Your task to perform on an android device: Open privacy settings Image 0: 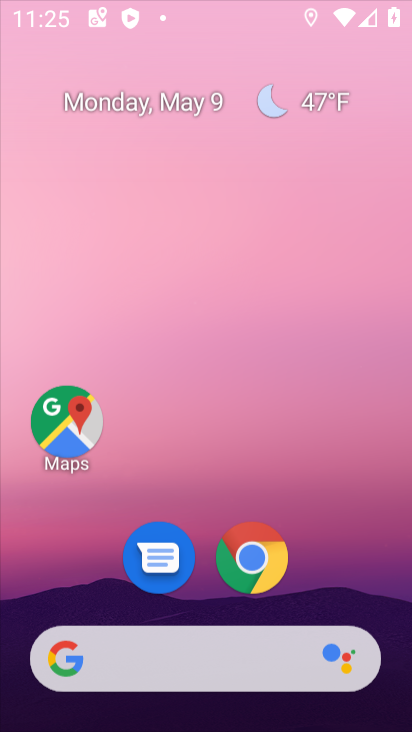
Step 0: click (342, 1)
Your task to perform on an android device: Open privacy settings Image 1: 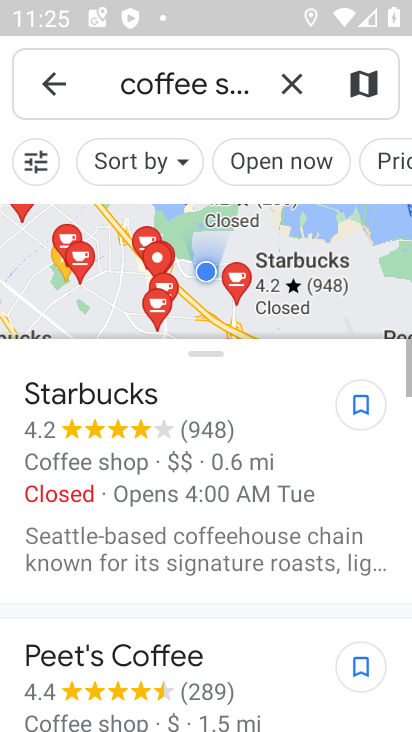
Step 1: press home button
Your task to perform on an android device: Open privacy settings Image 2: 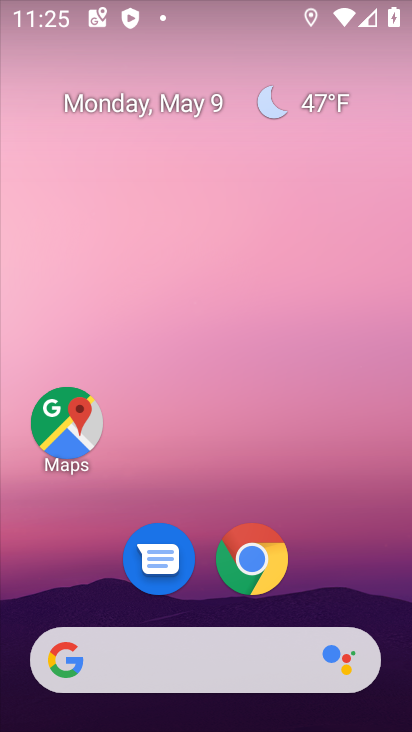
Step 2: drag from (349, 550) to (322, 71)
Your task to perform on an android device: Open privacy settings Image 3: 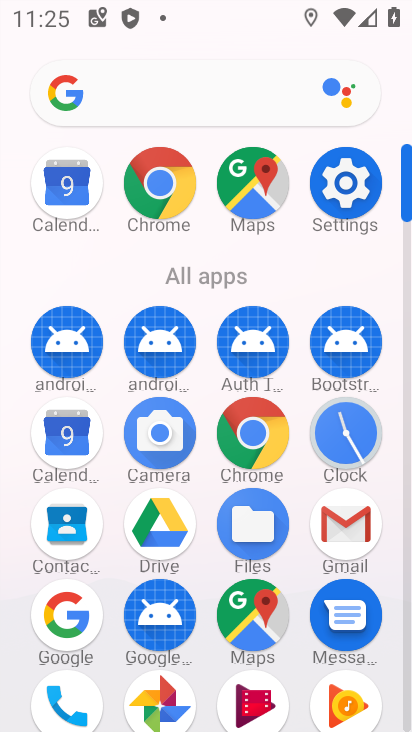
Step 3: click (343, 178)
Your task to perform on an android device: Open privacy settings Image 4: 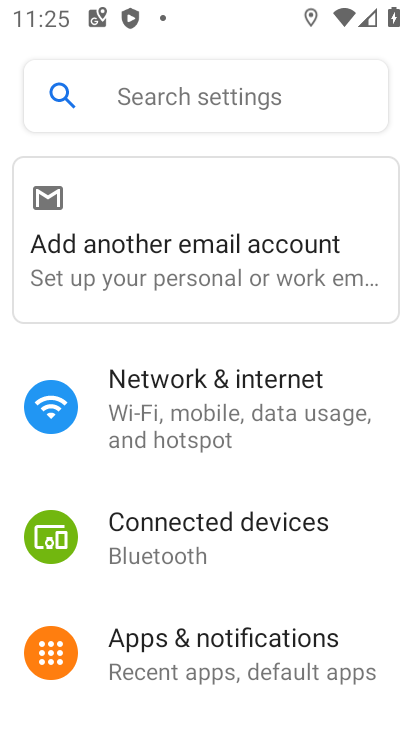
Step 4: drag from (191, 567) to (245, 35)
Your task to perform on an android device: Open privacy settings Image 5: 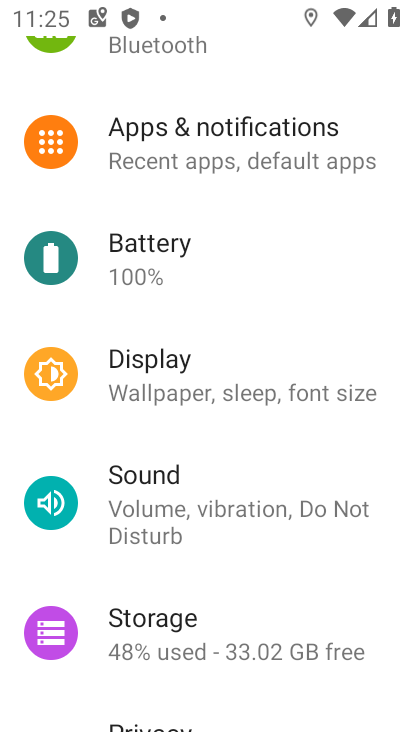
Step 5: drag from (169, 549) to (186, 276)
Your task to perform on an android device: Open privacy settings Image 6: 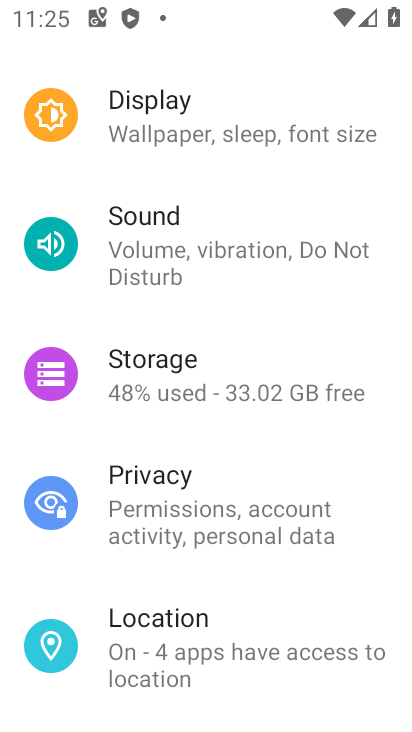
Step 6: click (151, 559)
Your task to perform on an android device: Open privacy settings Image 7: 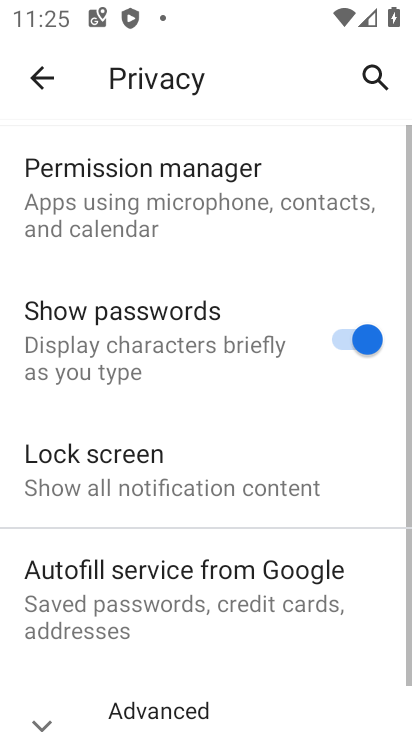
Step 7: task complete